Your task to perform on an android device: turn off location Image 0: 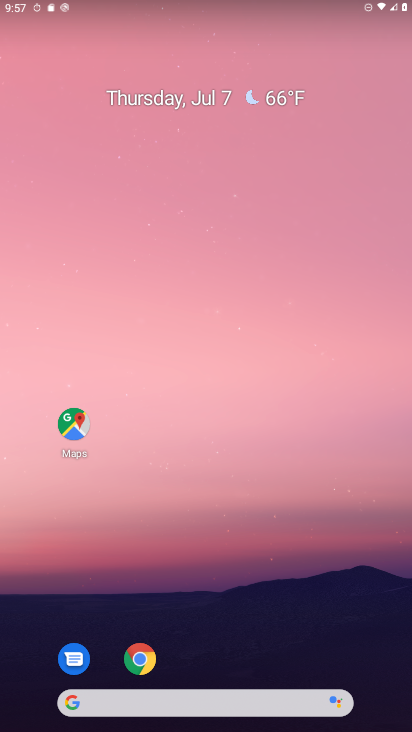
Step 0: drag from (379, 682) to (262, 56)
Your task to perform on an android device: turn off location Image 1: 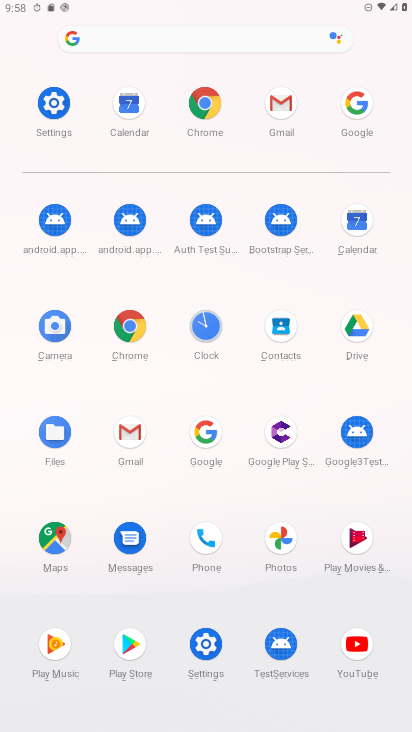
Step 1: click (198, 640)
Your task to perform on an android device: turn off location Image 2: 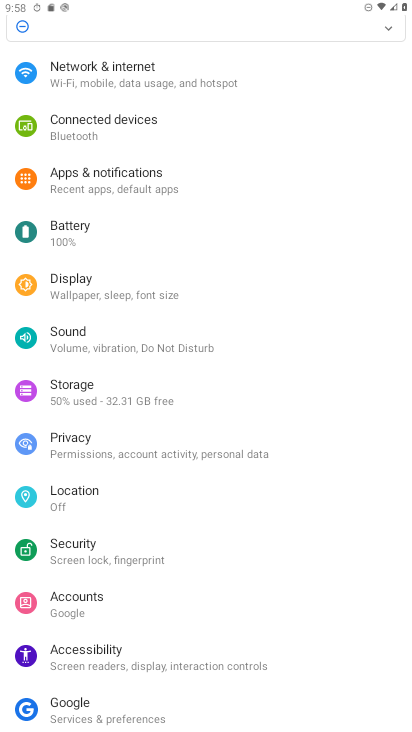
Step 2: click (93, 504)
Your task to perform on an android device: turn off location Image 3: 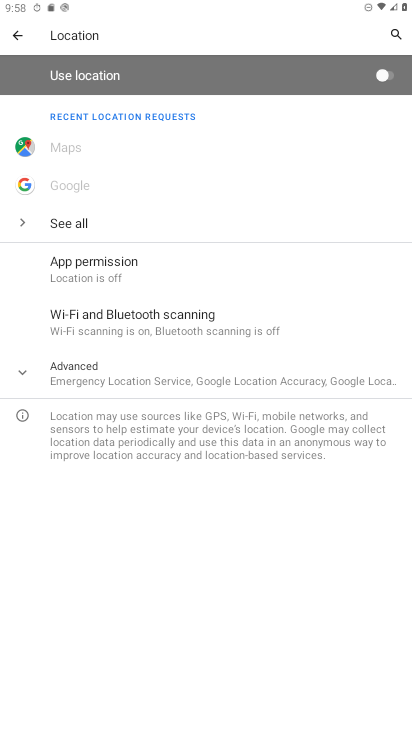
Step 3: task complete